Your task to perform on an android device: turn vacation reply on in the gmail app Image 0: 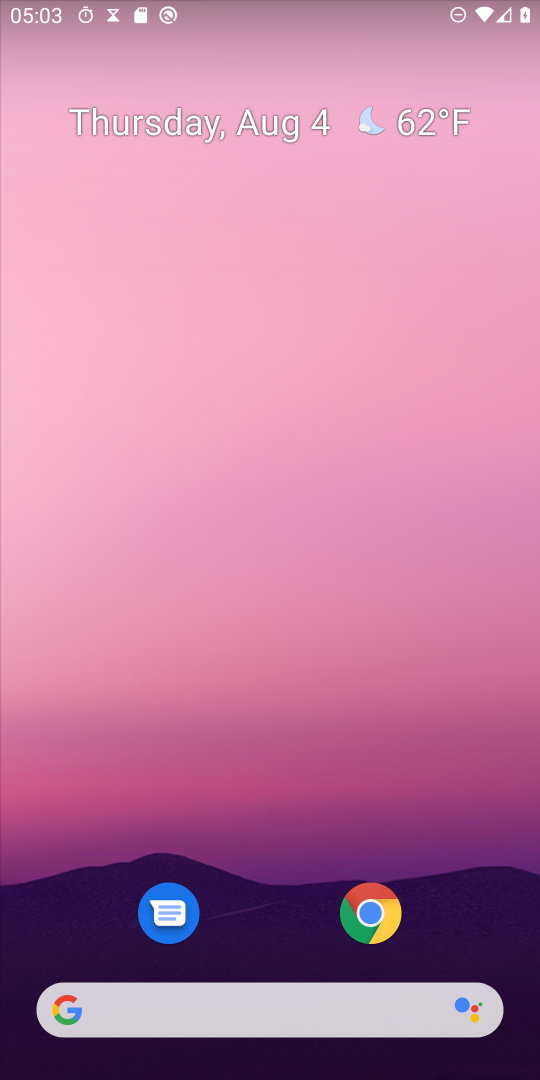
Step 0: drag from (279, 870) to (324, 305)
Your task to perform on an android device: turn vacation reply on in the gmail app Image 1: 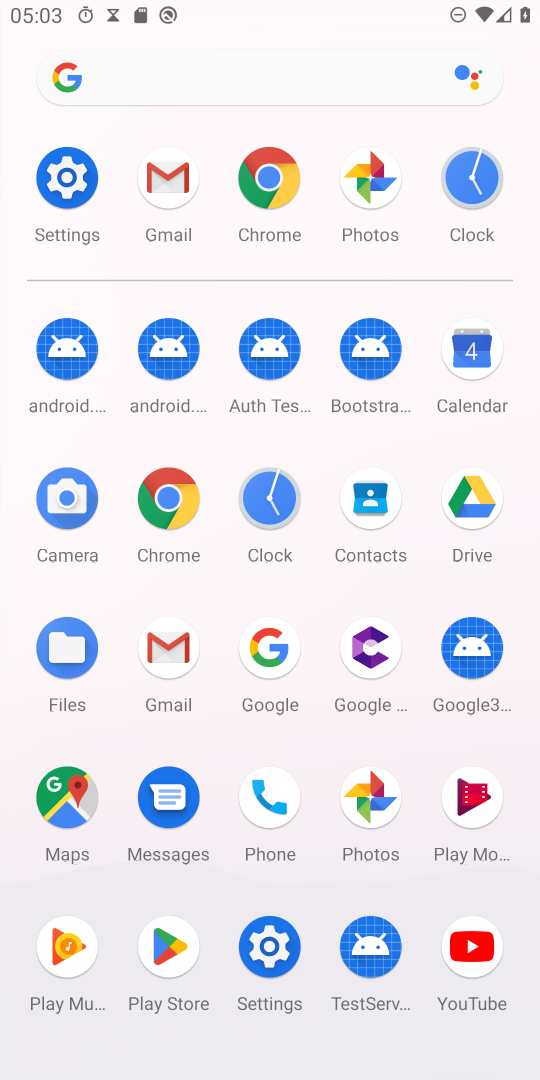
Step 1: click (176, 644)
Your task to perform on an android device: turn vacation reply on in the gmail app Image 2: 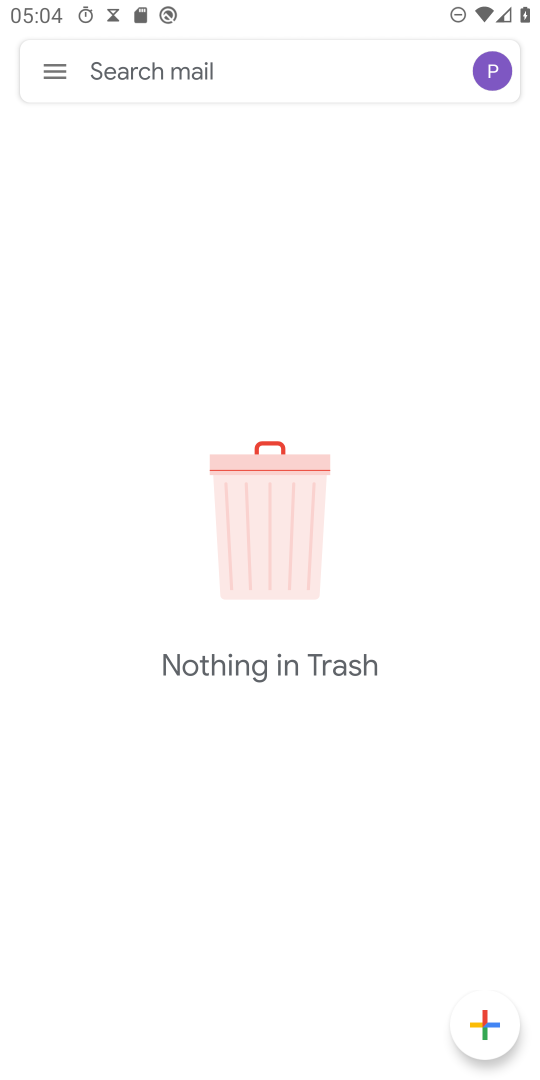
Step 2: click (58, 63)
Your task to perform on an android device: turn vacation reply on in the gmail app Image 3: 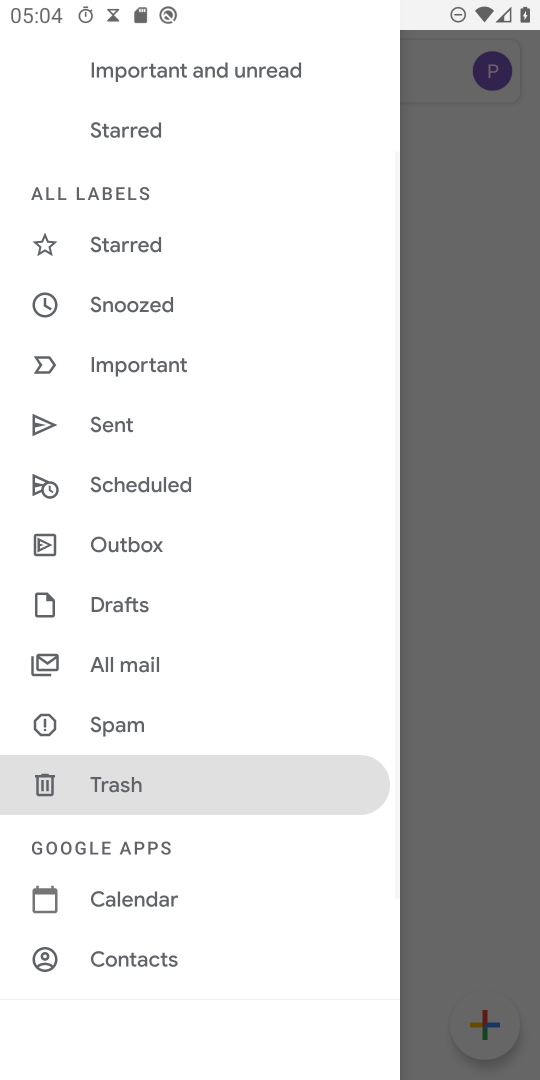
Step 3: drag from (109, 916) to (164, 122)
Your task to perform on an android device: turn vacation reply on in the gmail app Image 4: 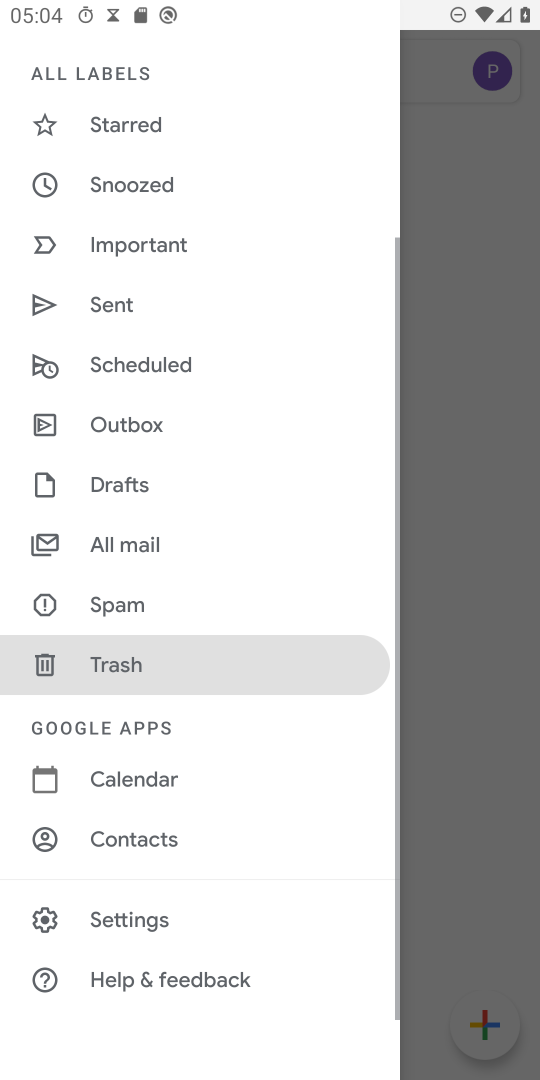
Step 4: click (135, 912)
Your task to perform on an android device: turn vacation reply on in the gmail app Image 5: 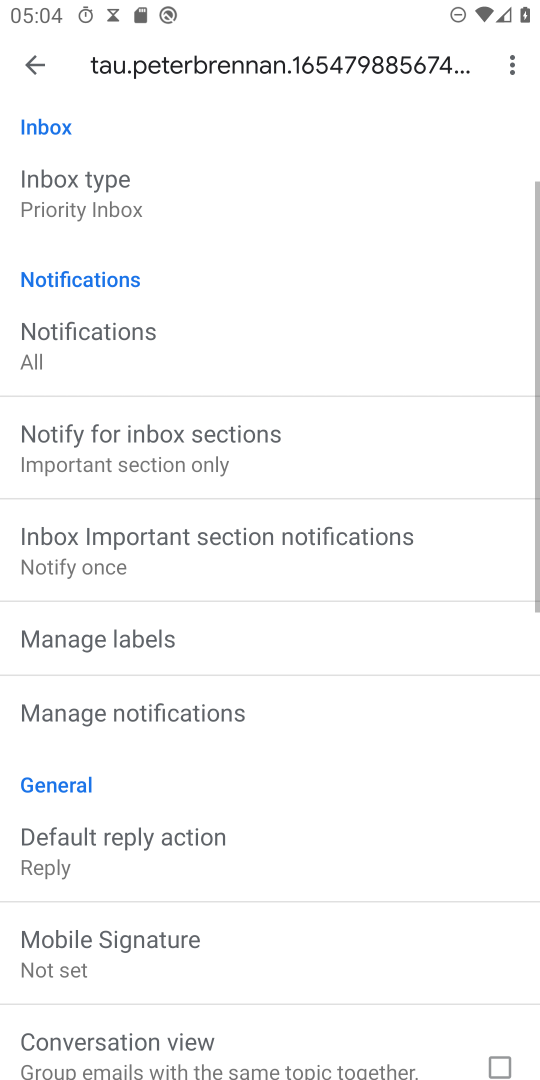
Step 5: drag from (221, 816) to (263, 160)
Your task to perform on an android device: turn vacation reply on in the gmail app Image 6: 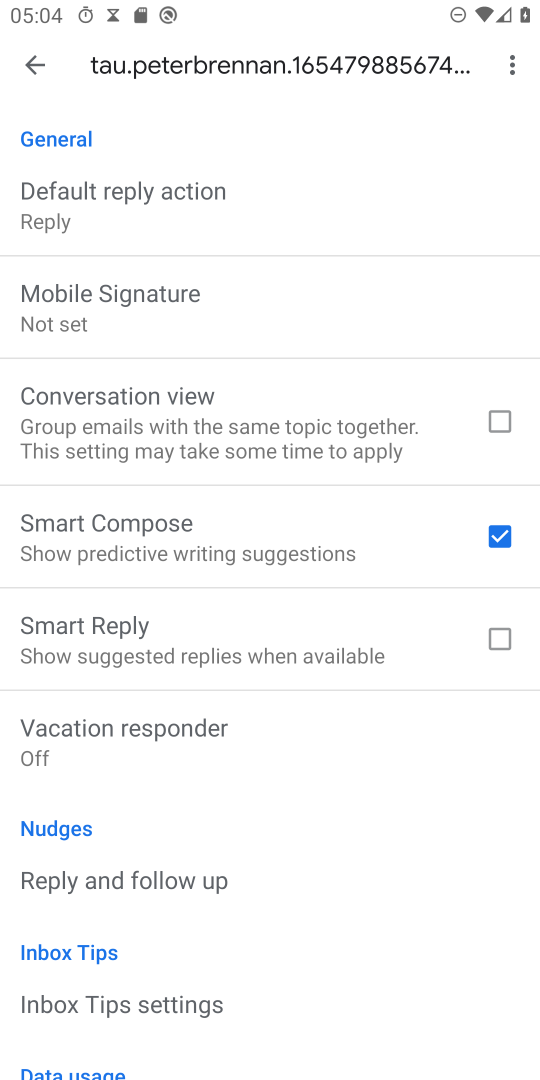
Step 6: click (160, 725)
Your task to perform on an android device: turn vacation reply on in the gmail app Image 7: 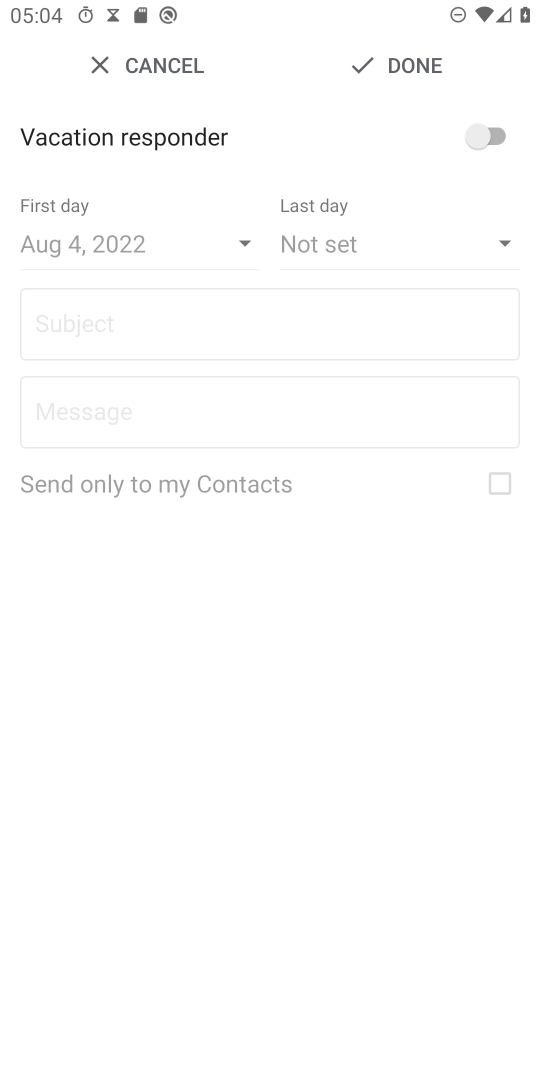
Step 7: click (498, 131)
Your task to perform on an android device: turn vacation reply on in the gmail app Image 8: 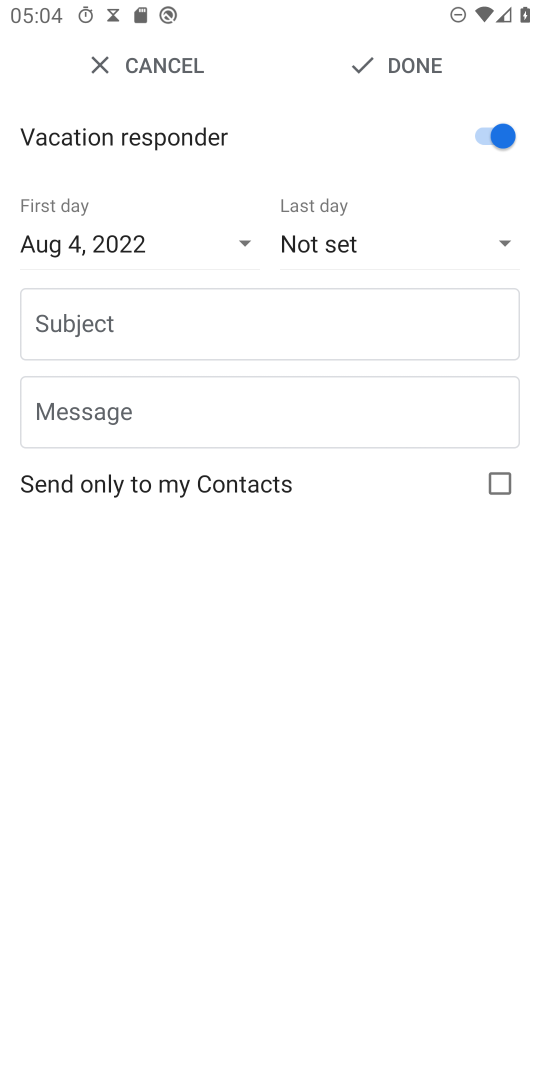
Step 8: click (405, 58)
Your task to perform on an android device: turn vacation reply on in the gmail app Image 9: 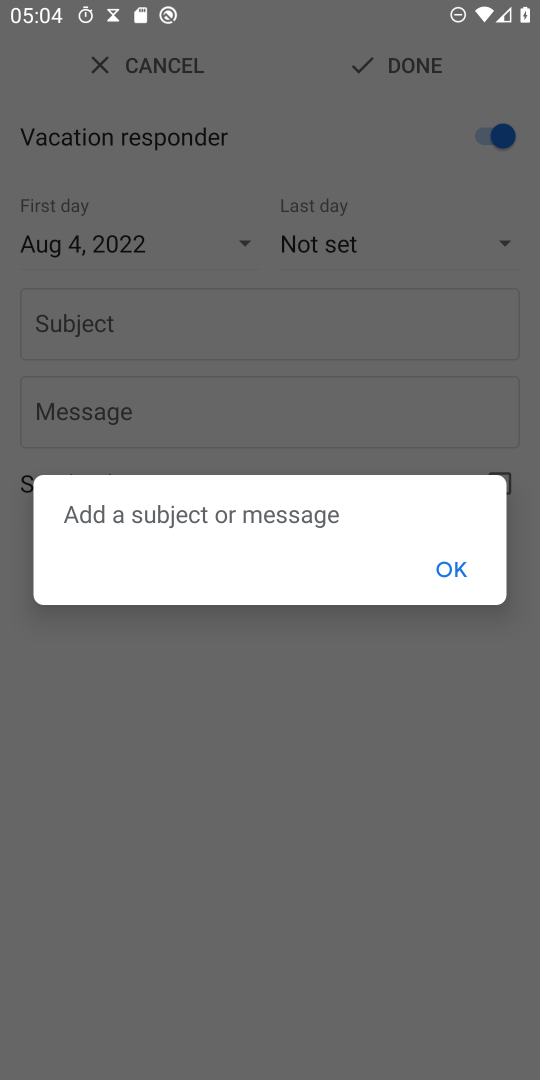
Step 9: click (435, 556)
Your task to perform on an android device: turn vacation reply on in the gmail app Image 10: 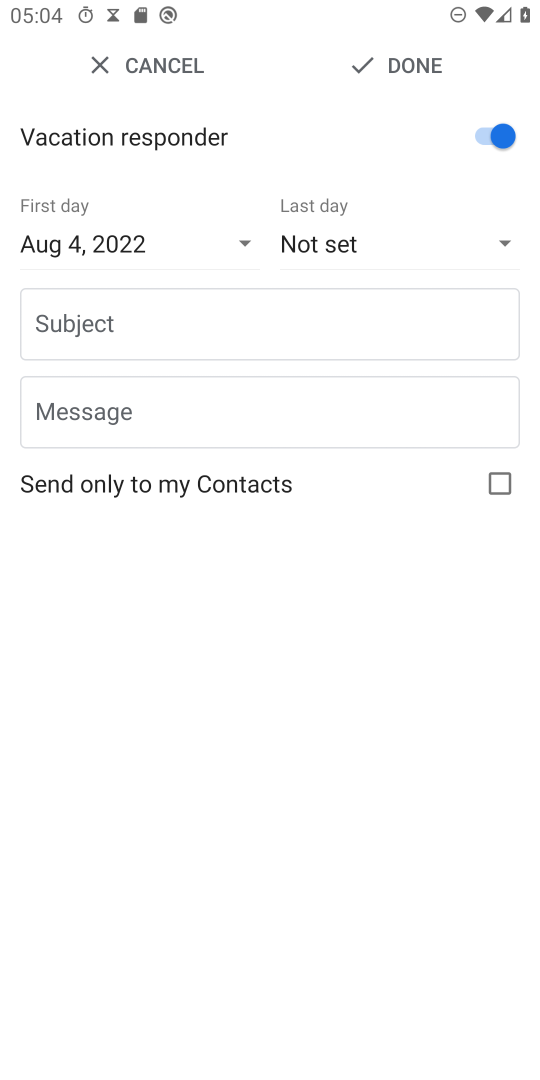
Step 10: task complete